Your task to perform on an android device: add a contact in the contacts app Image 0: 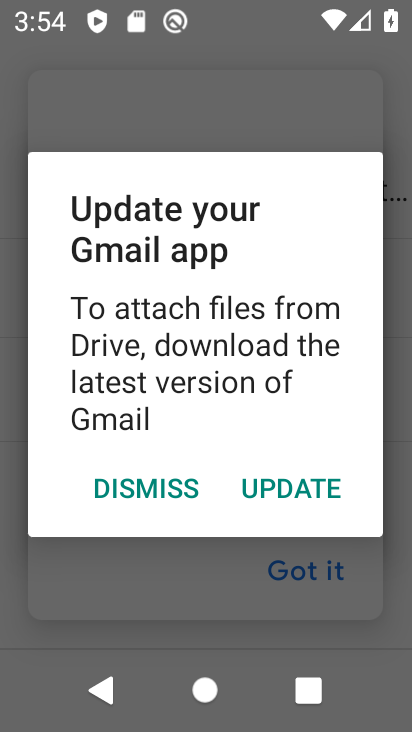
Step 0: press home button
Your task to perform on an android device: add a contact in the contacts app Image 1: 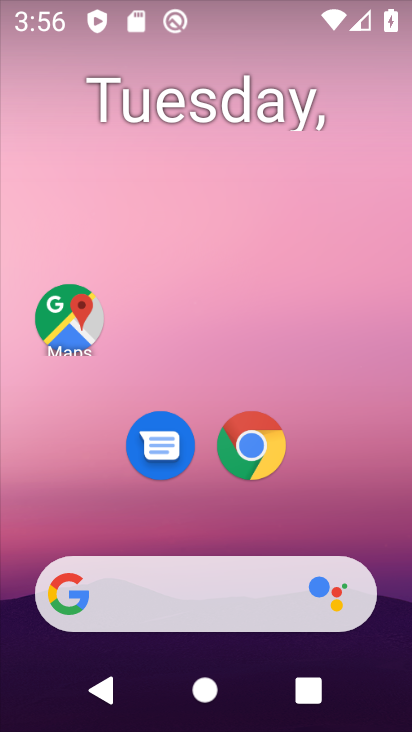
Step 1: drag from (252, 576) to (264, 2)
Your task to perform on an android device: add a contact in the contacts app Image 2: 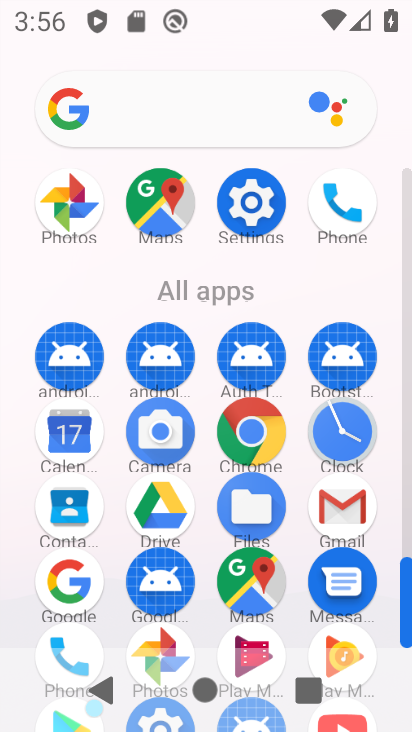
Step 2: click (75, 496)
Your task to perform on an android device: add a contact in the contacts app Image 3: 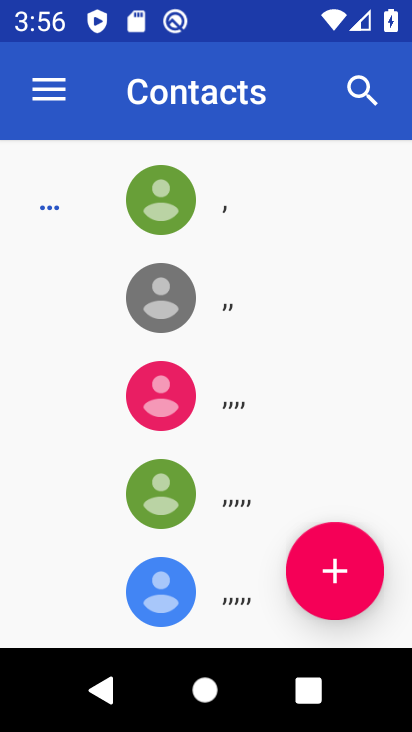
Step 3: click (347, 562)
Your task to perform on an android device: add a contact in the contacts app Image 4: 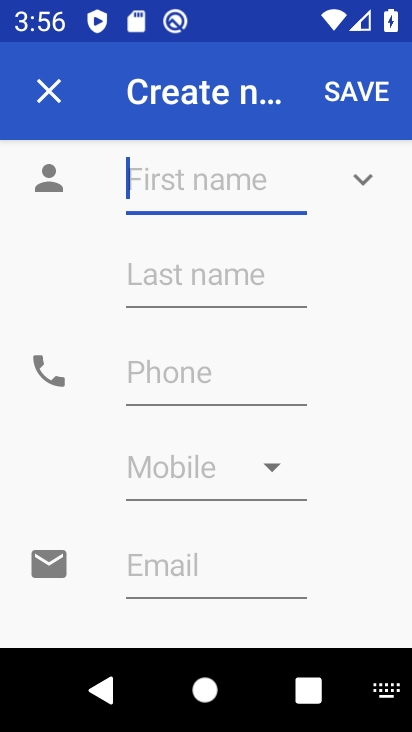
Step 4: type "yhfhfhj"
Your task to perform on an android device: add a contact in the contacts app Image 5: 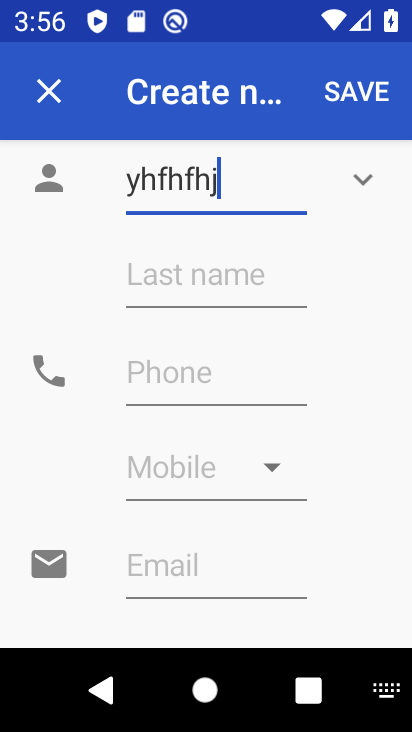
Step 5: click (181, 378)
Your task to perform on an android device: add a contact in the contacts app Image 6: 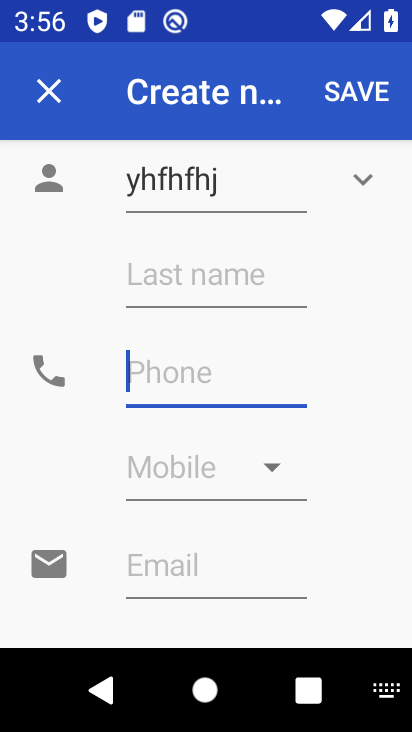
Step 6: type "98978788788"
Your task to perform on an android device: add a contact in the contacts app Image 7: 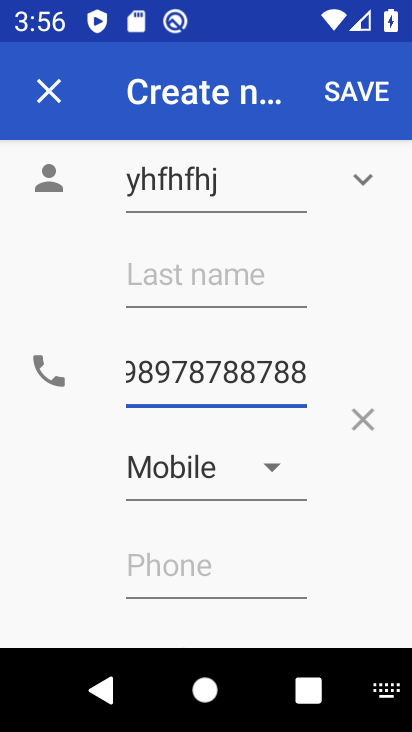
Step 7: click (358, 84)
Your task to perform on an android device: add a contact in the contacts app Image 8: 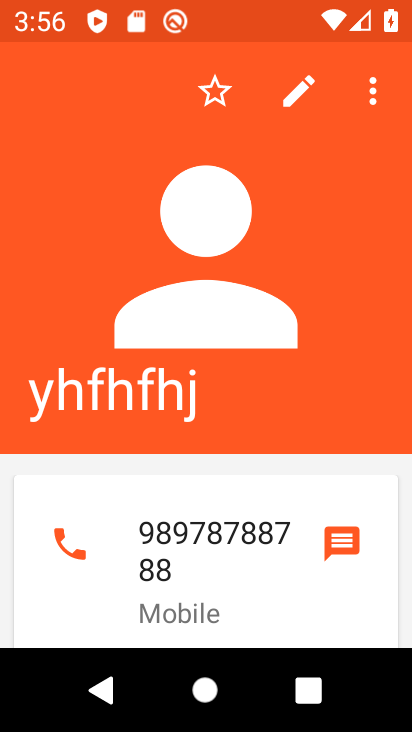
Step 8: task complete